Your task to perform on an android device: make emails show in primary in the gmail app Image 0: 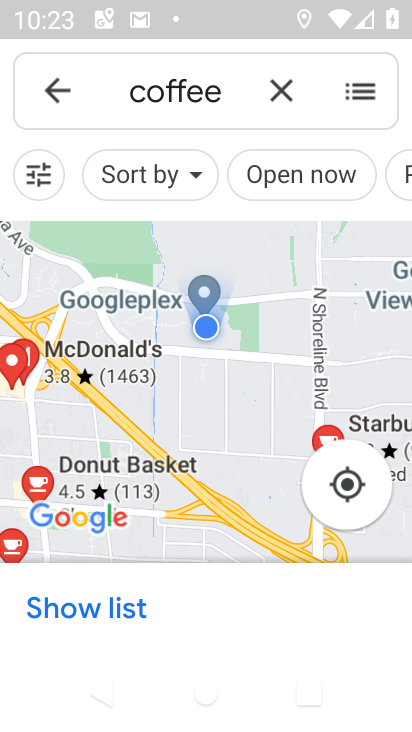
Step 0: press home button
Your task to perform on an android device: make emails show in primary in the gmail app Image 1: 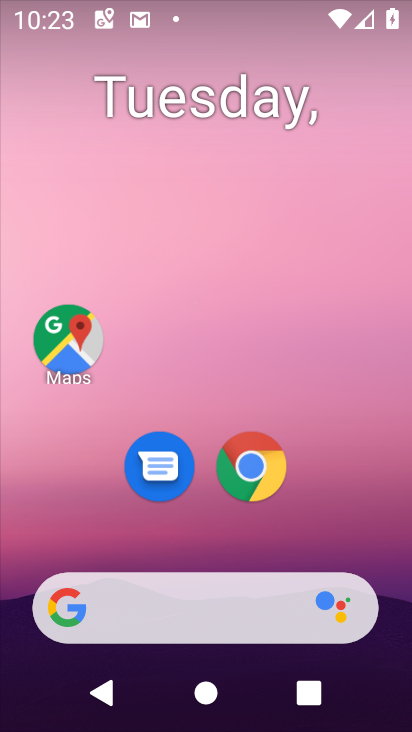
Step 1: drag from (242, 668) to (203, 152)
Your task to perform on an android device: make emails show in primary in the gmail app Image 2: 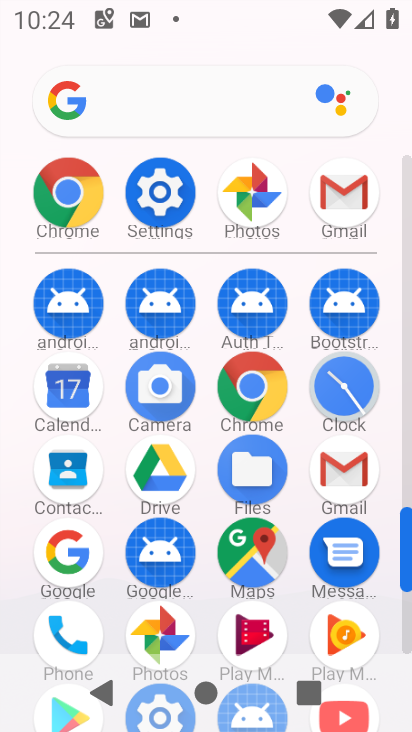
Step 2: click (323, 483)
Your task to perform on an android device: make emails show in primary in the gmail app Image 3: 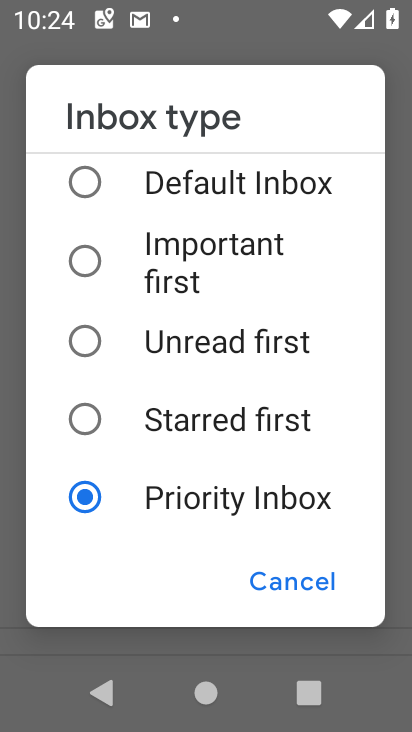
Step 3: task complete